Your task to perform on an android device: Open Wikipedia Image 0: 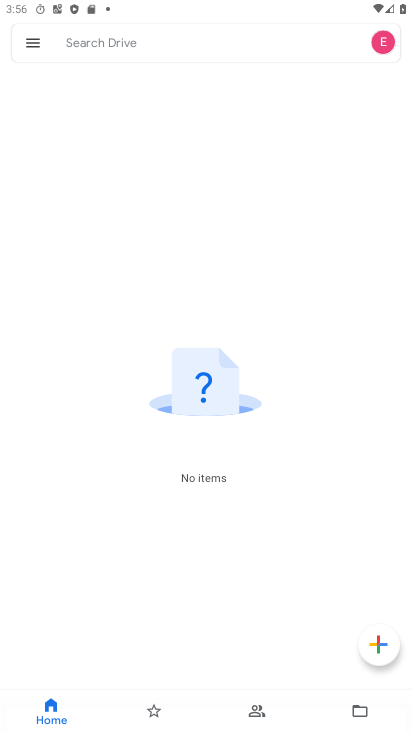
Step 0: press back button
Your task to perform on an android device: Open Wikipedia Image 1: 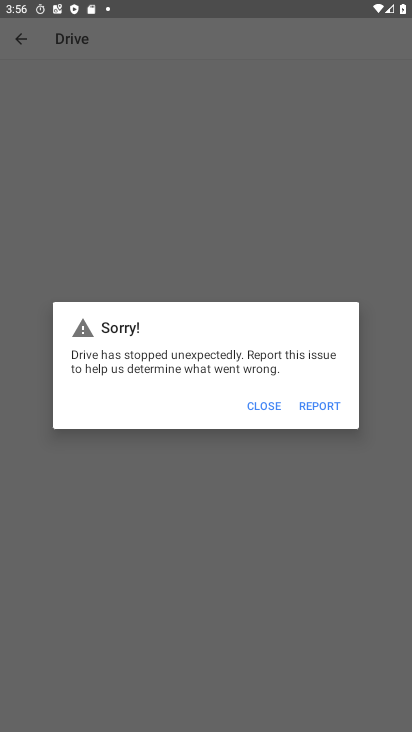
Step 1: press home button
Your task to perform on an android device: Open Wikipedia Image 2: 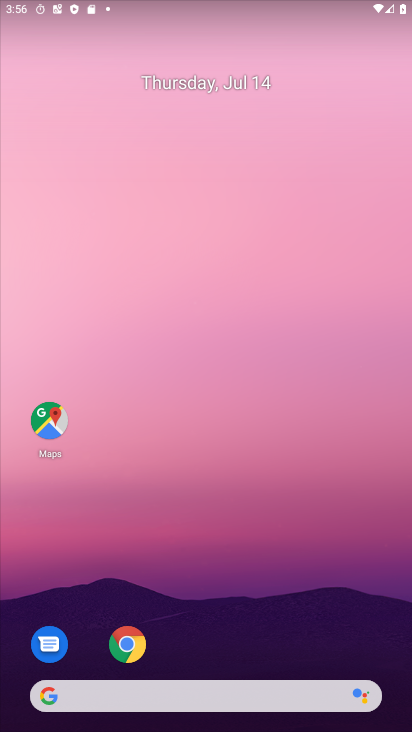
Step 2: click (134, 647)
Your task to perform on an android device: Open Wikipedia Image 3: 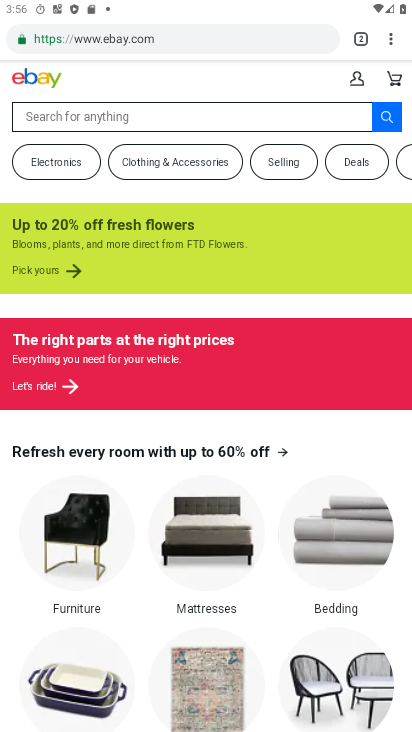
Step 3: click (358, 49)
Your task to perform on an android device: Open Wikipedia Image 4: 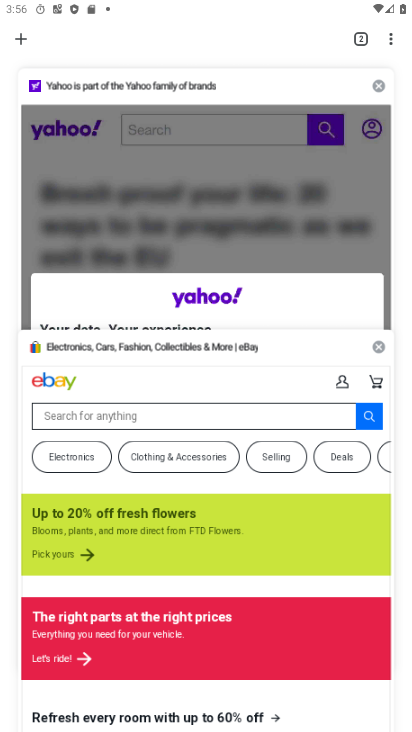
Step 4: click (20, 33)
Your task to perform on an android device: Open Wikipedia Image 5: 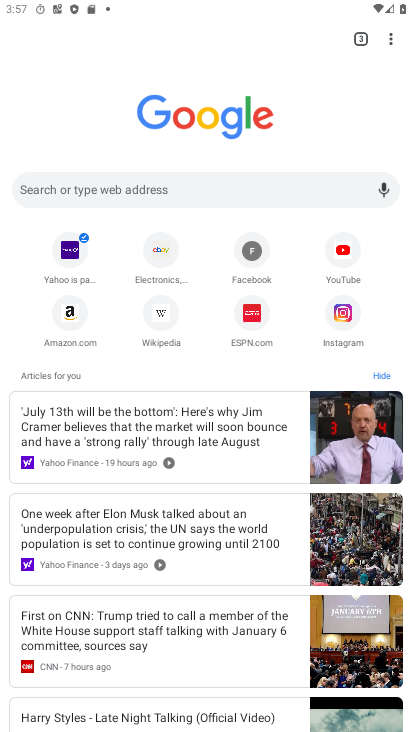
Step 5: click (158, 315)
Your task to perform on an android device: Open Wikipedia Image 6: 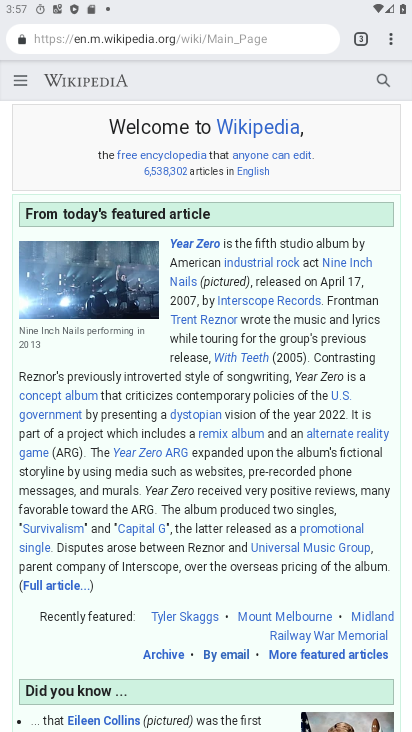
Step 6: task complete